Your task to perform on an android device: set default search engine in the chrome app Image 0: 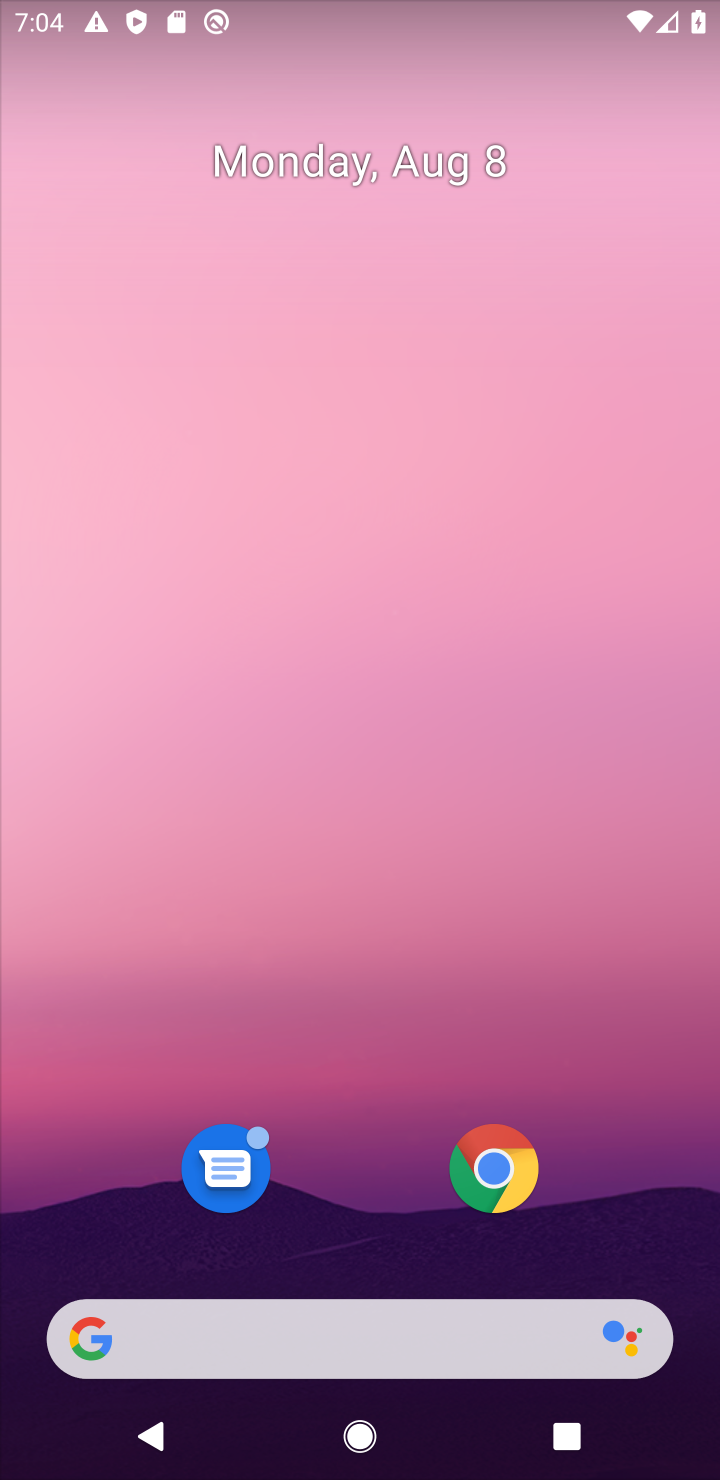
Step 0: drag from (659, 1218) to (332, 61)
Your task to perform on an android device: set default search engine in the chrome app Image 1: 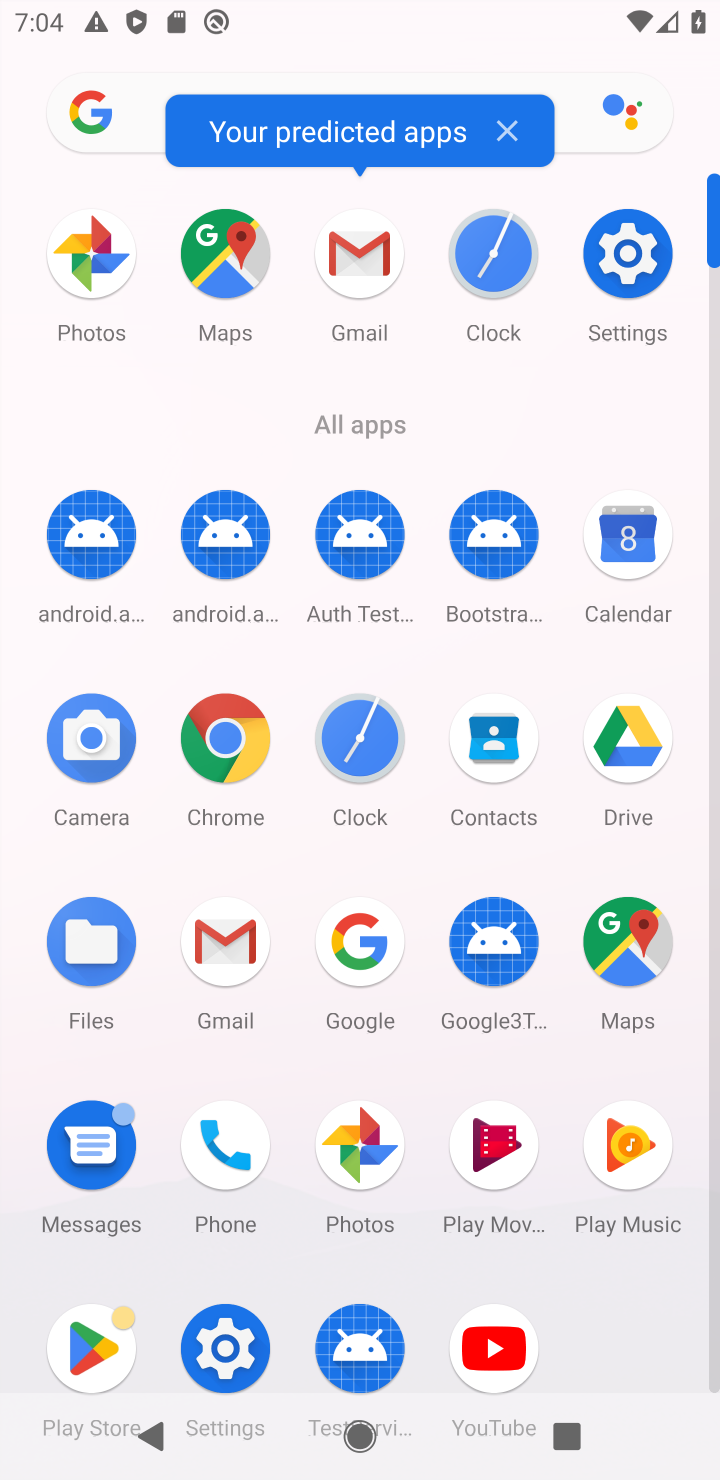
Step 1: click (235, 768)
Your task to perform on an android device: set default search engine in the chrome app Image 2: 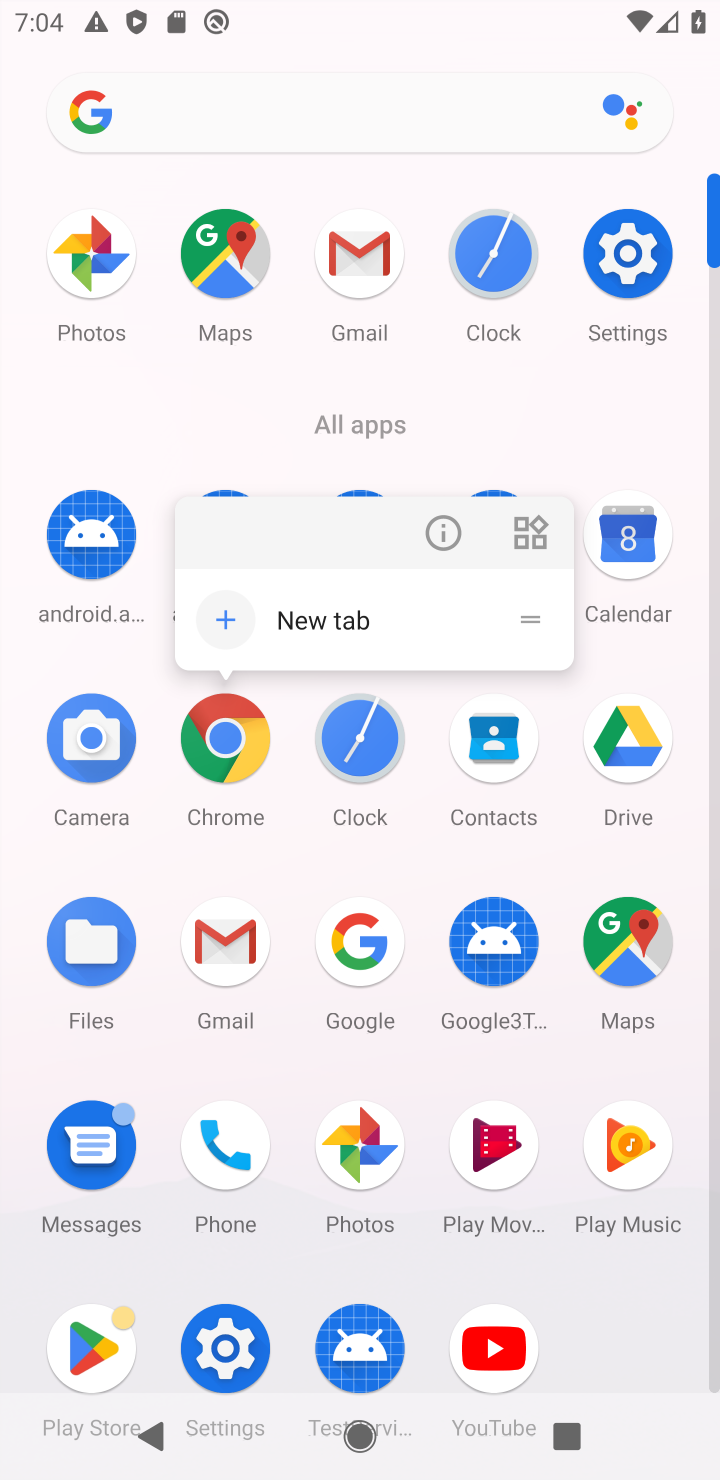
Step 2: click (235, 768)
Your task to perform on an android device: set default search engine in the chrome app Image 3: 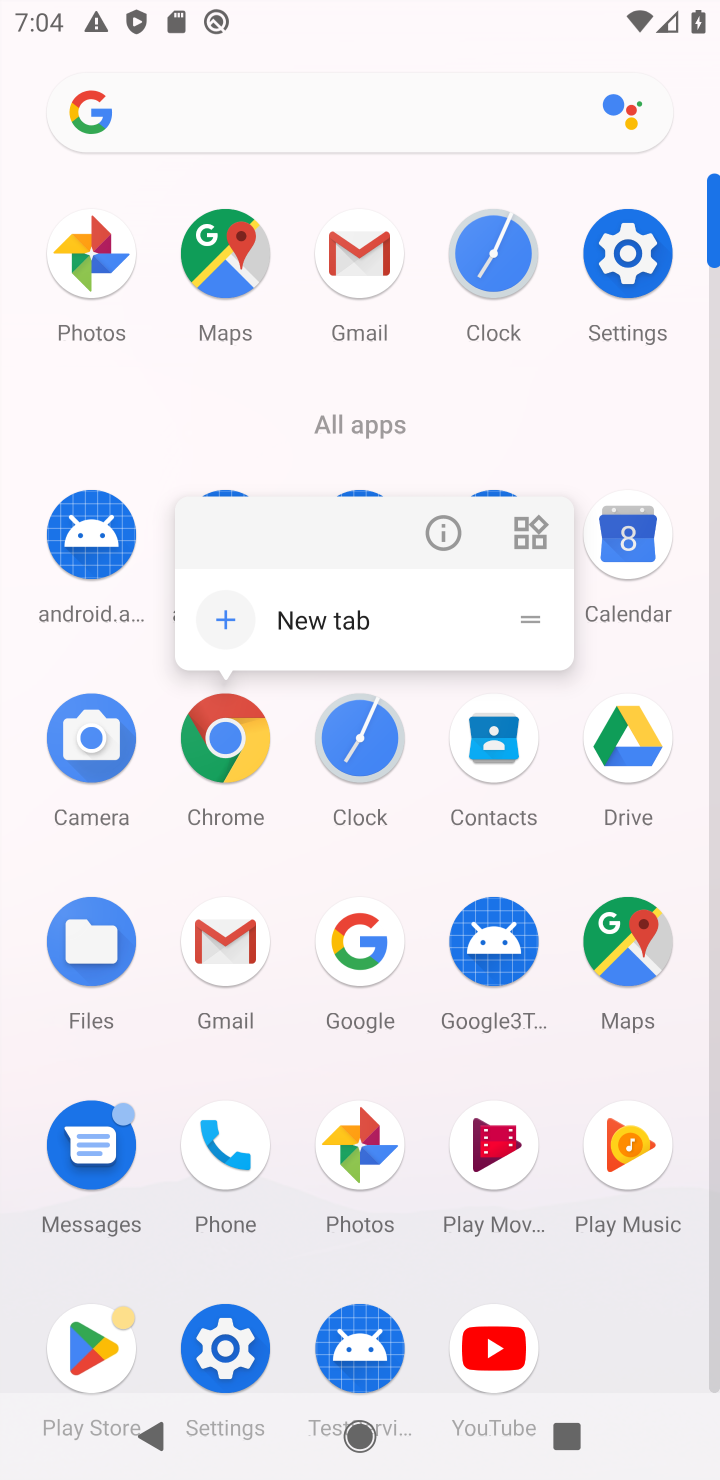
Step 3: click (235, 768)
Your task to perform on an android device: set default search engine in the chrome app Image 4: 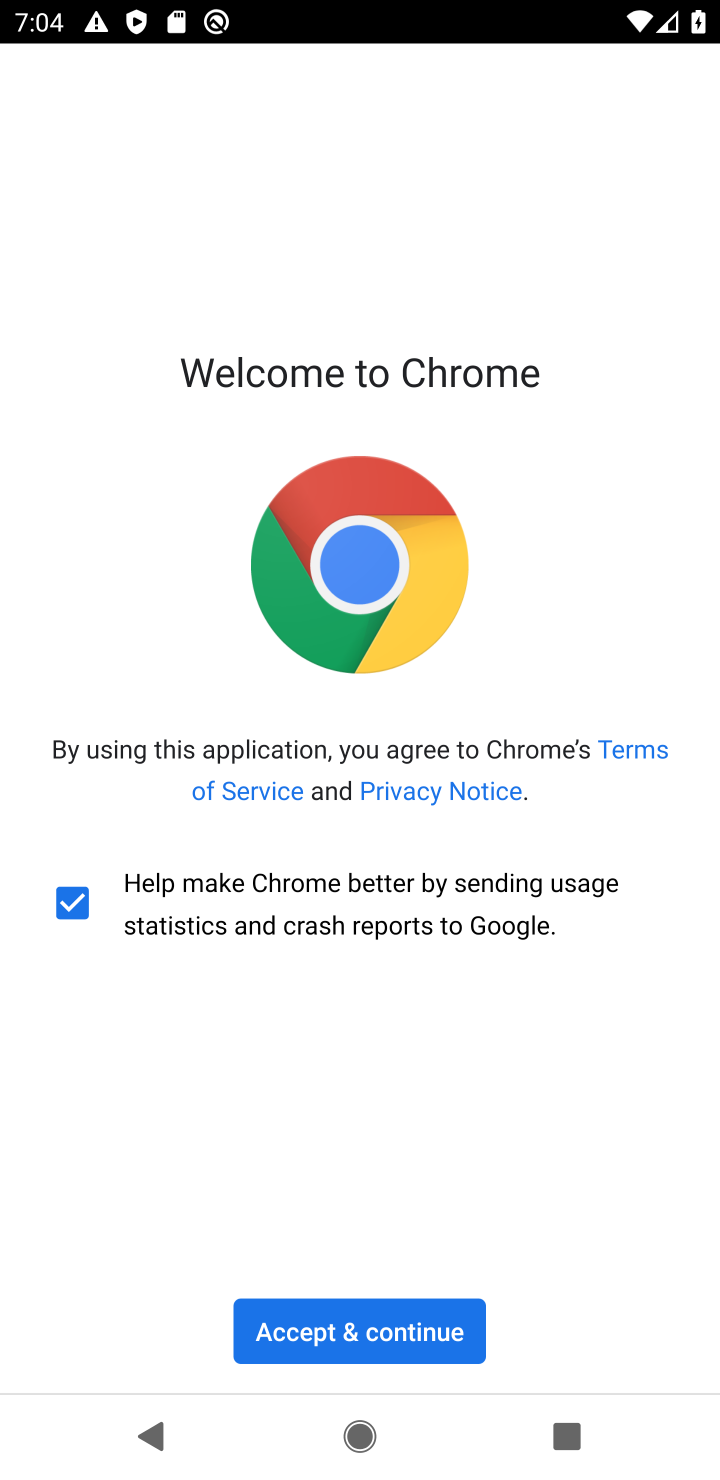
Step 4: click (350, 1325)
Your task to perform on an android device: set default search engine in the chrome app Image 5: 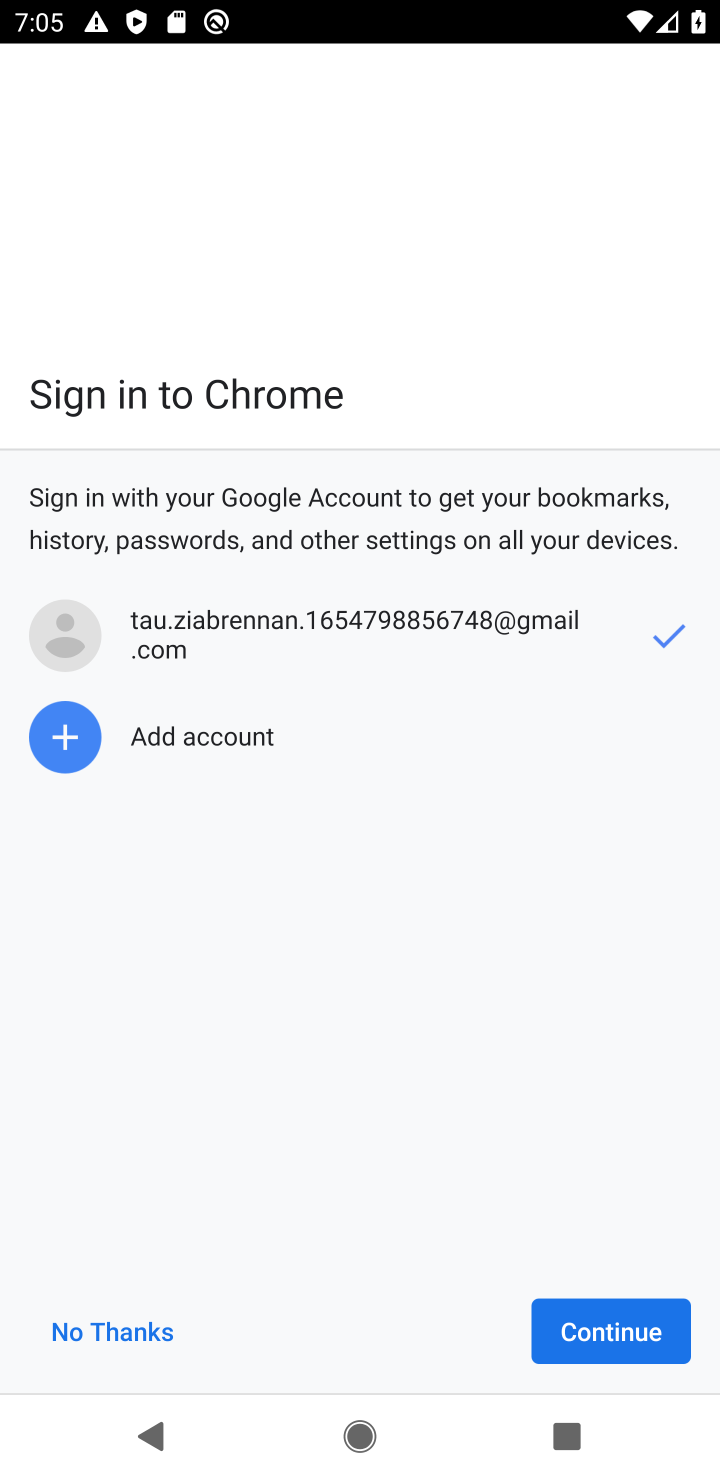
Step 5: click (599, 1331)
Your task to perform on an android device: set default search engine in the chrome app Image 6: 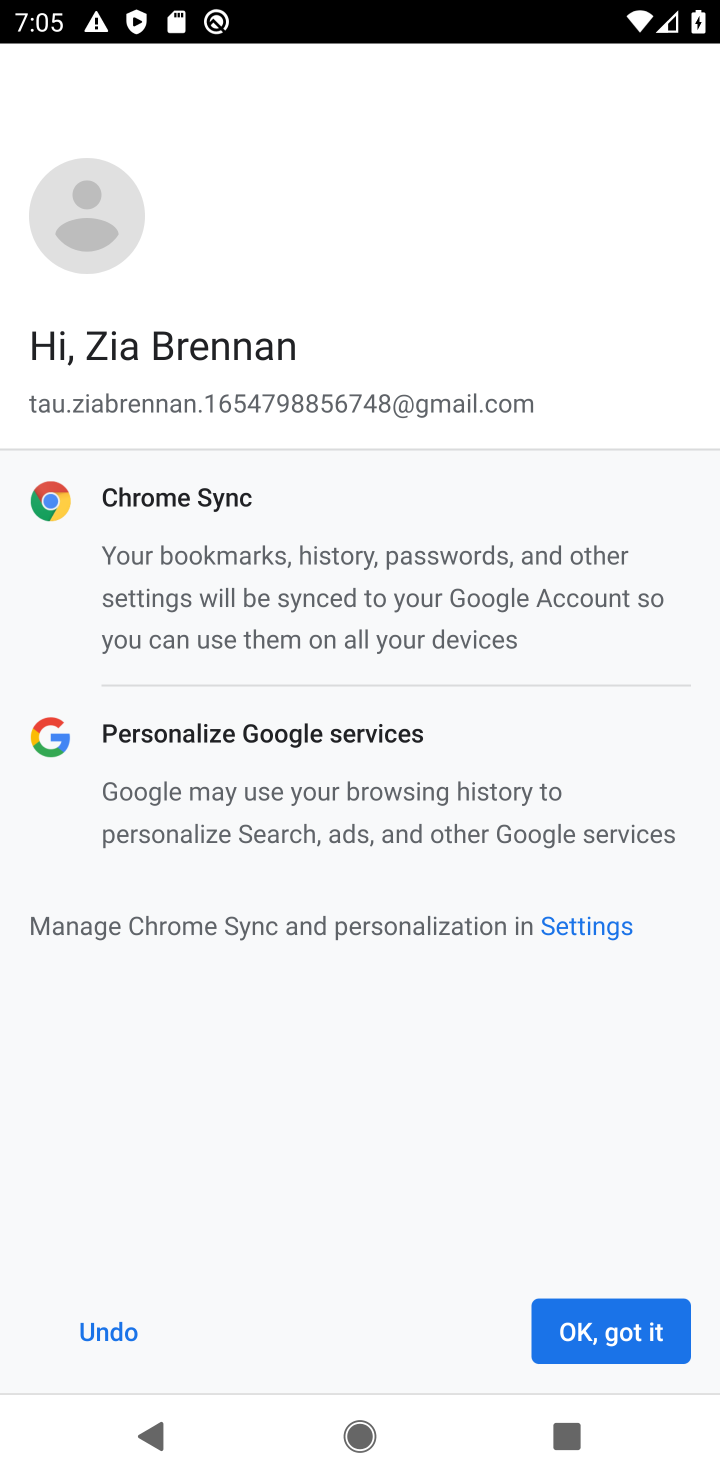
Step 6: click (599, 1331)
Your task to perform on an android device: set default search engine in the chrome app Image 7: 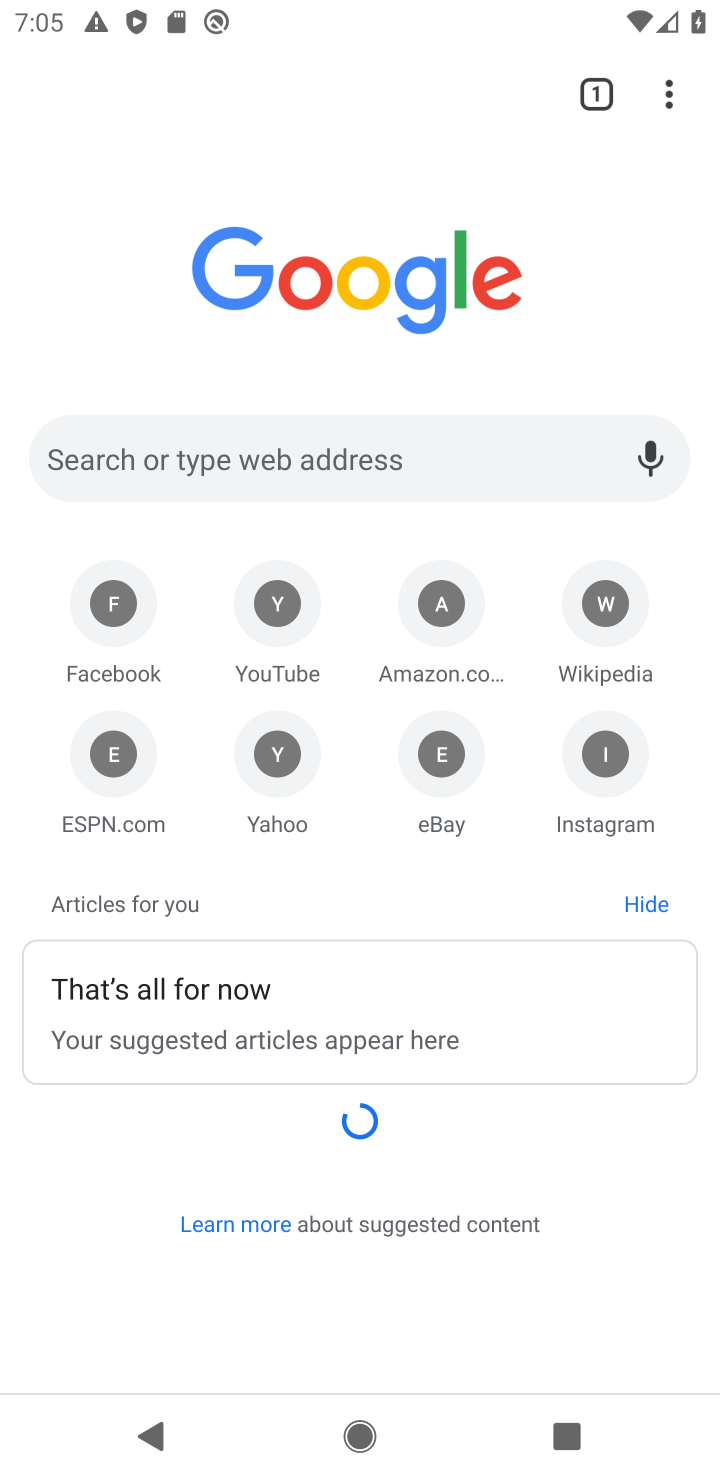
Step 7: click (664, 116)
Your task to perform on an android device: set default search engine in the chrome app Image 8: 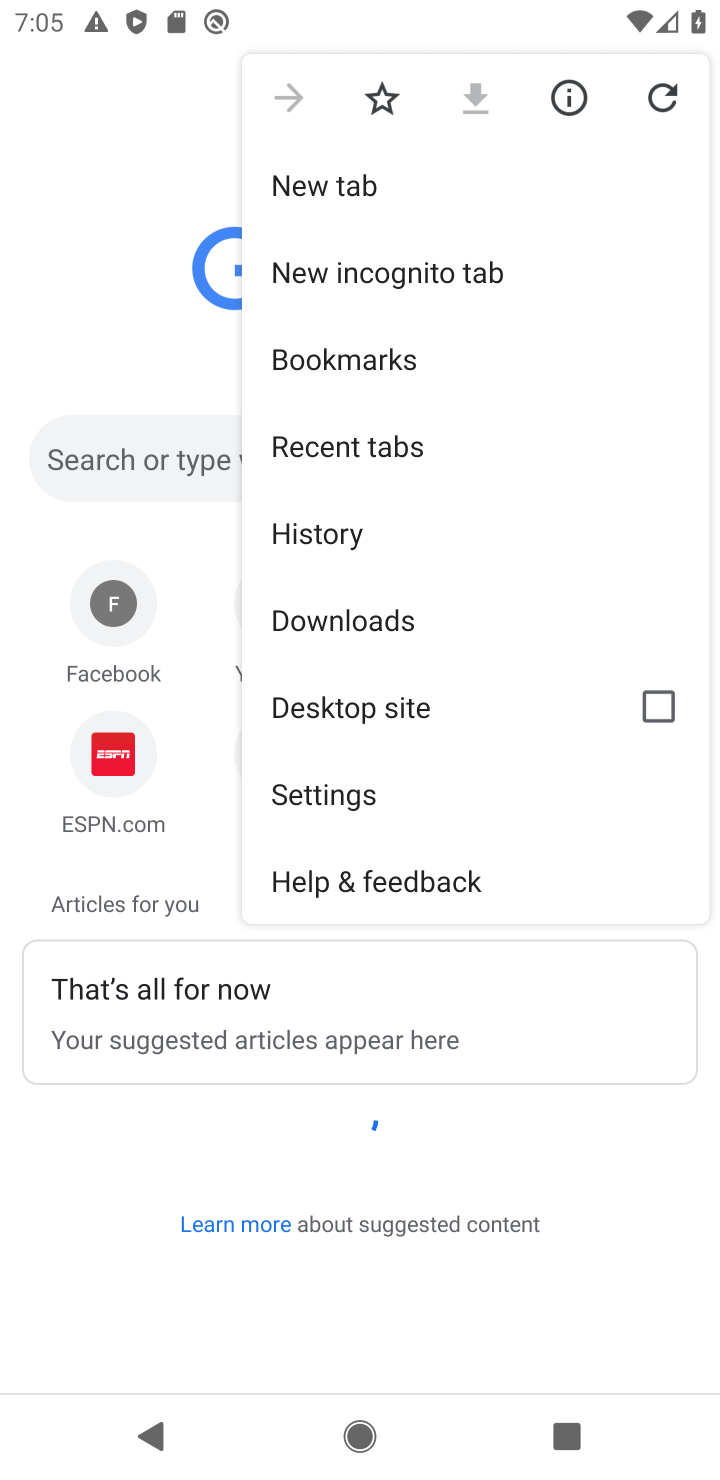
Step 8: click (379, 804)
Your task to perform on an android device: set default search engine in the chrome app Image 9: 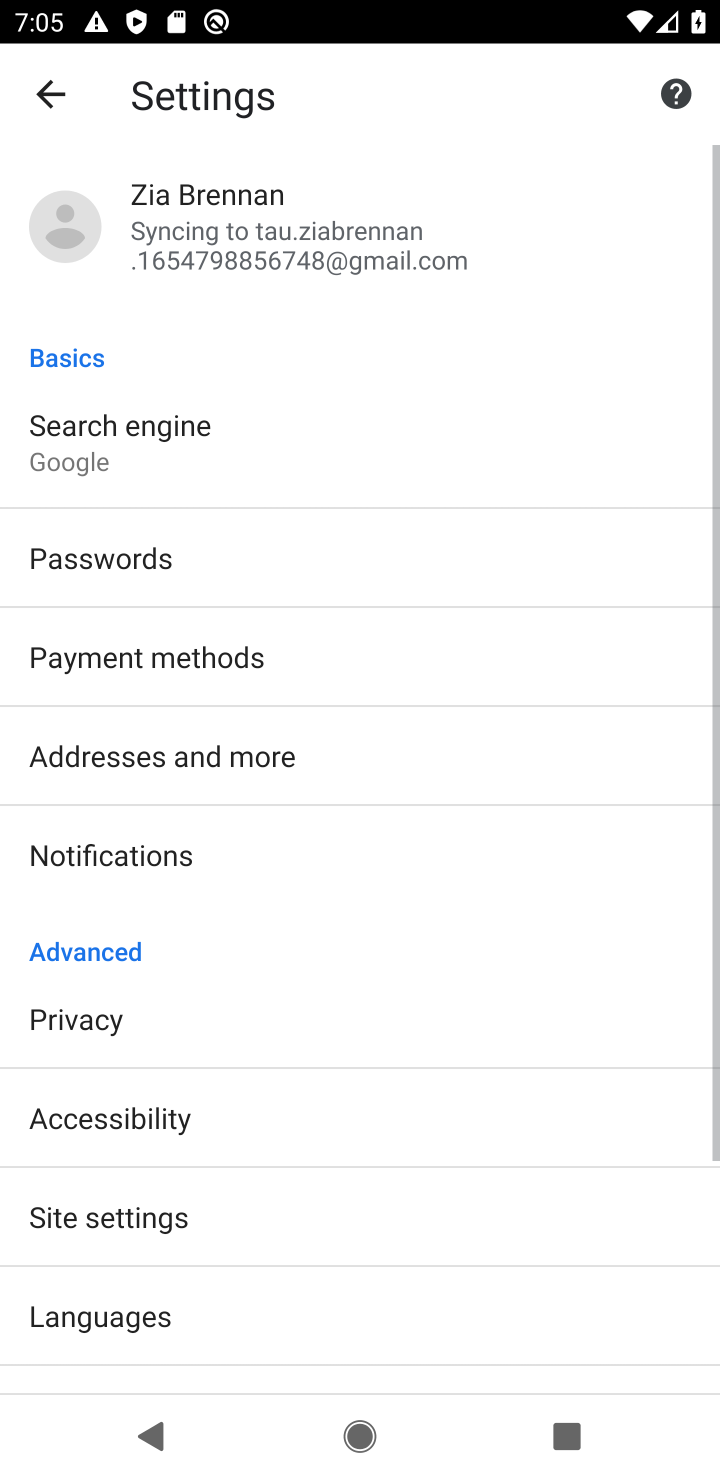
Step 9: click (170, 464)
Your task to perform on an android device: set default search engine in the chrome app Image 10: 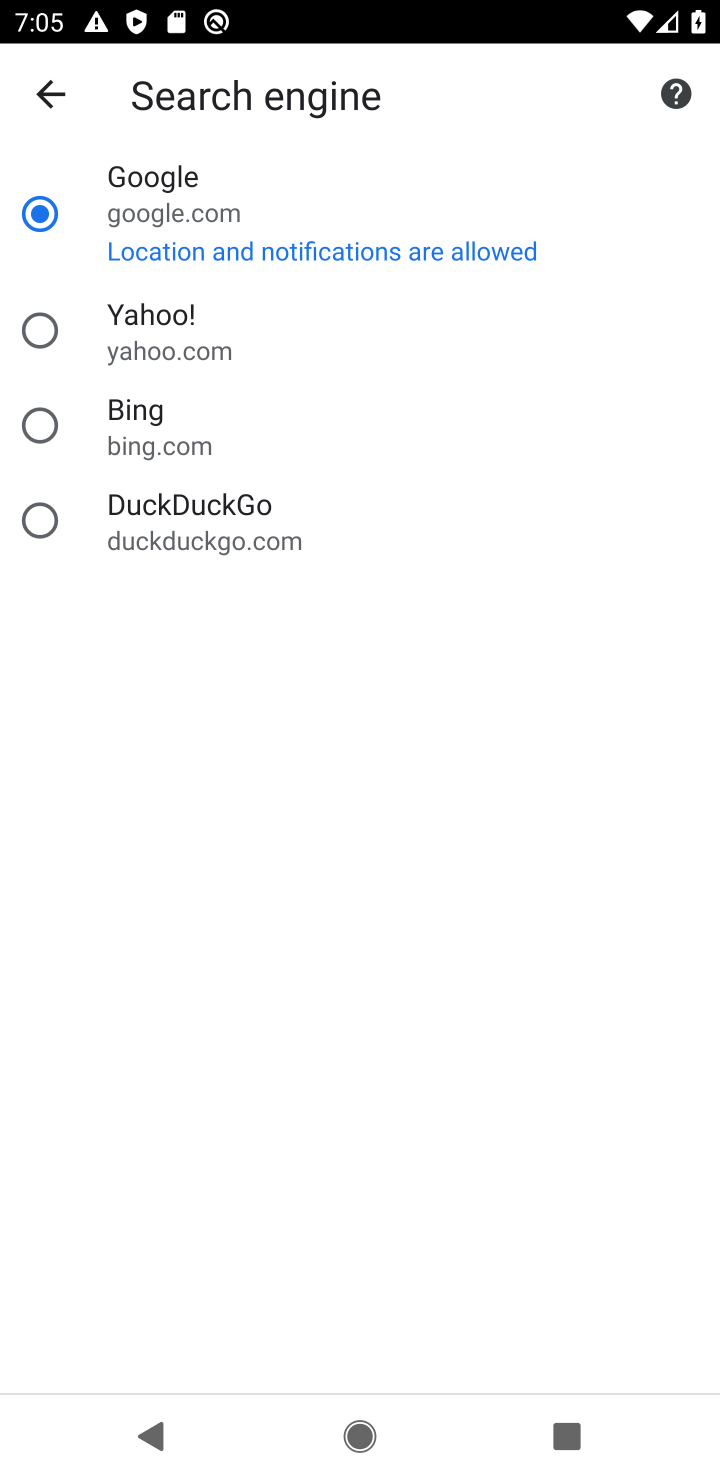
Step 10: click (179, 459)
Your task to perform on an android device: set default search engine in the chrome app Image 11: 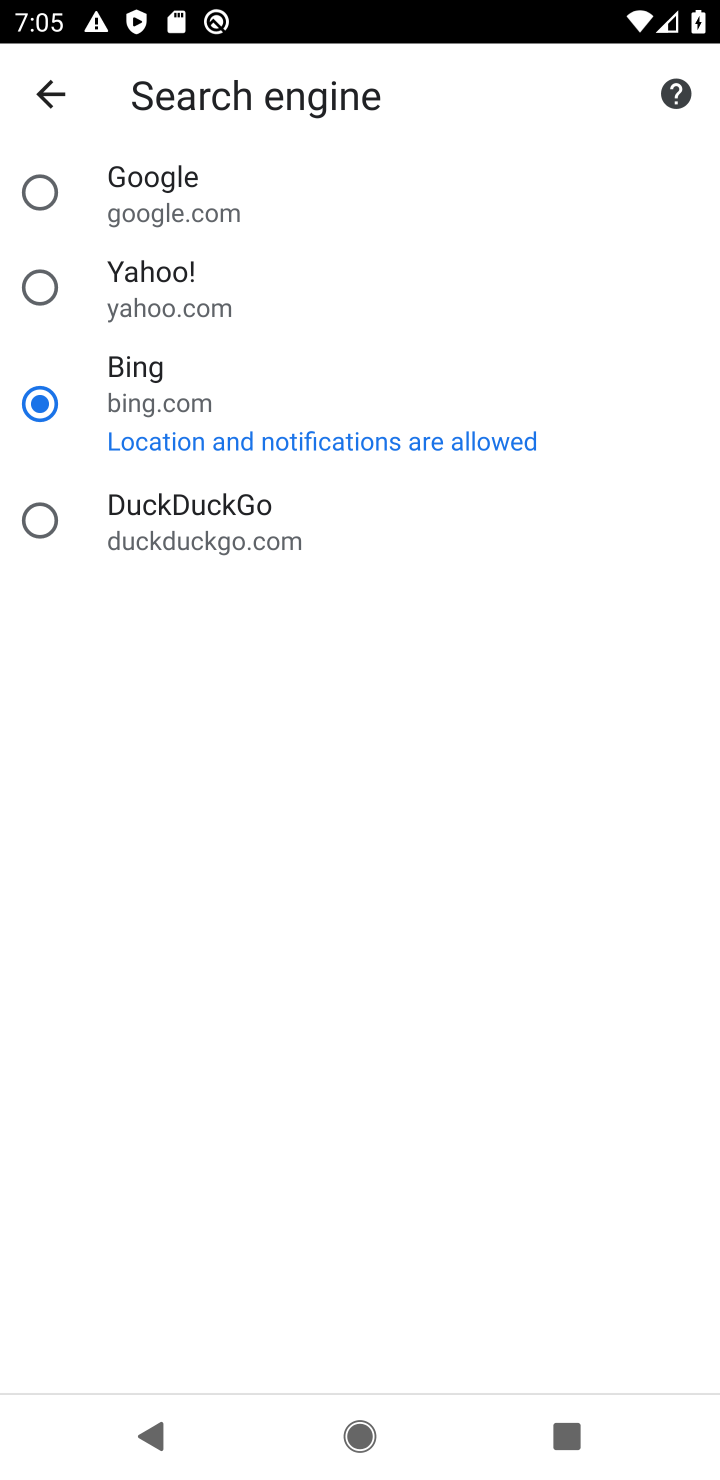
Step 11: task complete